Your task to perform on an android device: star an email in the gmail app Image 0: 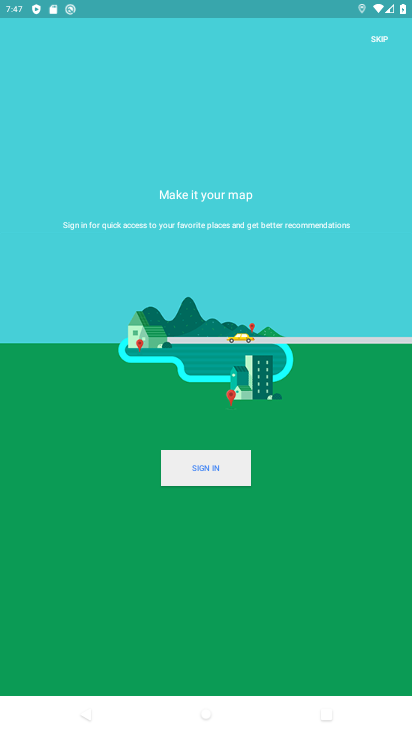
Step 0: press home button
Your task to perform on an android device: star an email in the gmail app Image 1: 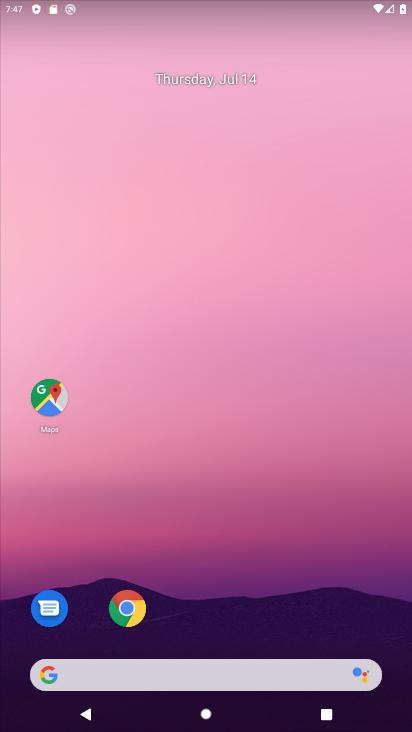
Step 1: drag from (269, 555) to (207, 98)
Your task to perform on an android device: star an email in the gmail app Image 2: 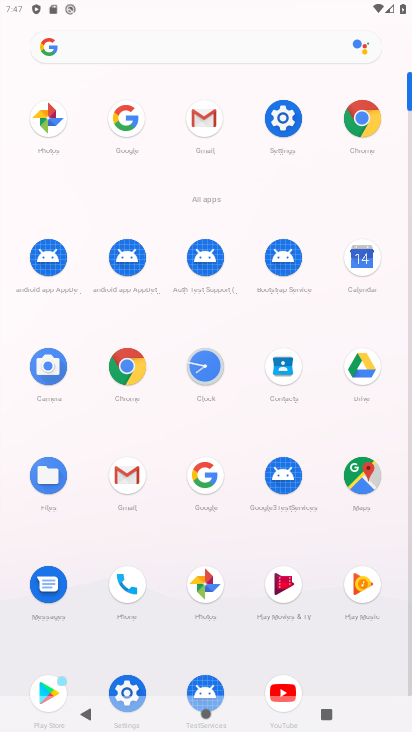
Step 2: click (198, 114)
Your task to perform on an android device: star an email in the gmail app Image 3: 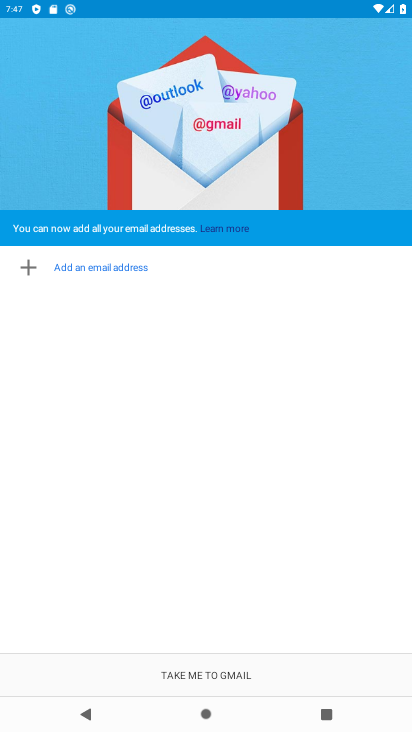
Step 3: click (207, 673)
Your task to perform on an android device: star an email in the gmail app Image 4: 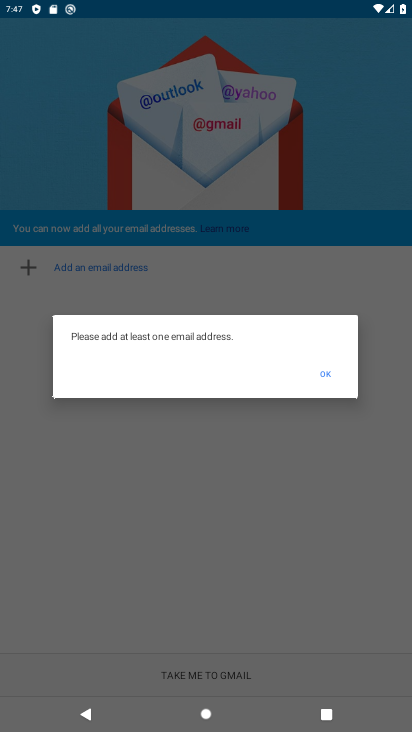
Step 4: click (328, 371)
Your task to perform on an android device: star an email in the gmail app Image 5: 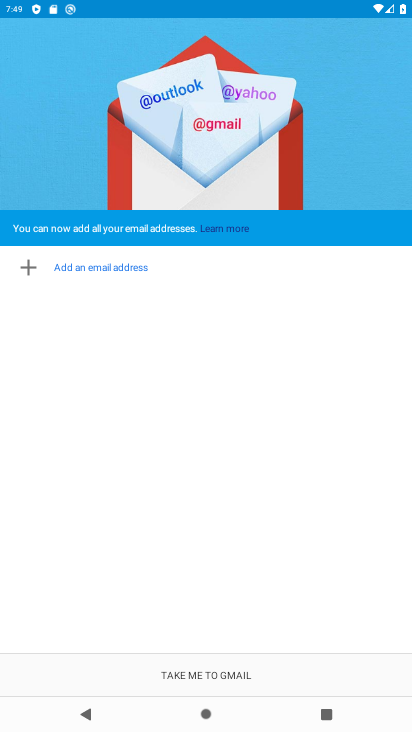
Step 5: click (208, 661)
Your task to perform on an android device: star an email in the gmail app Image 6: 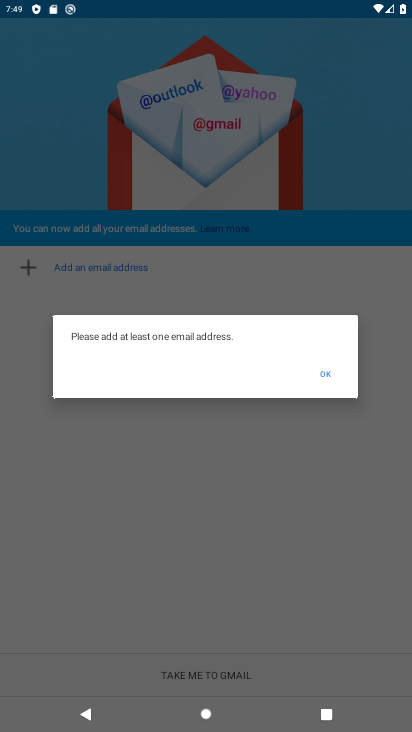
Step 6: click (329, 366)
Your task to perform on an android device: star an email in the gmail app Image 7: 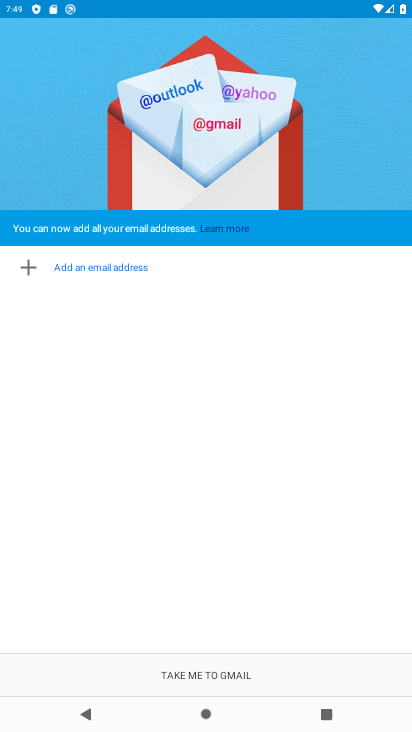
Step 7: task complete